Your task to perform on an android device: Search for a custom made wallet on Etsy Image 0: 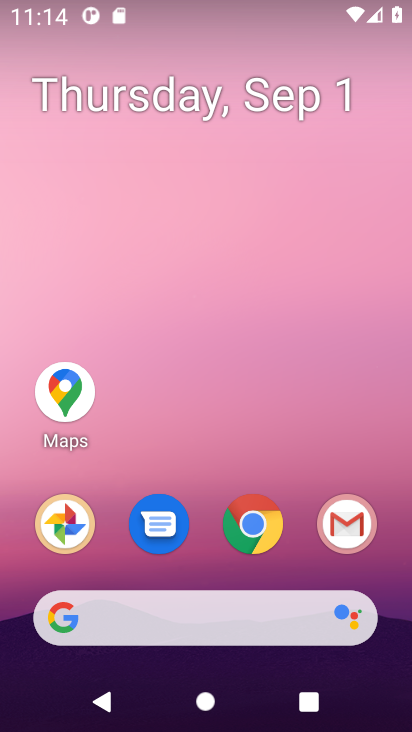
Step 0: click (263, 618)
Your task to perform on an android device: Search for a custom made wallet on Etsy Image 1: 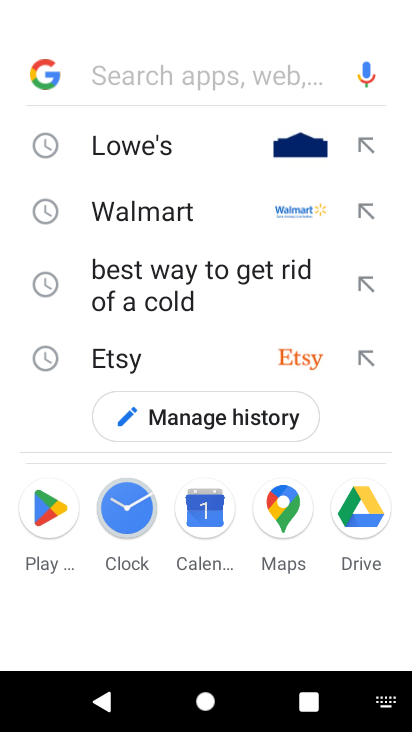
Step 1: press enter
Your task to perform on an android device: Search for a custom made wallet on Etsy Image 2: 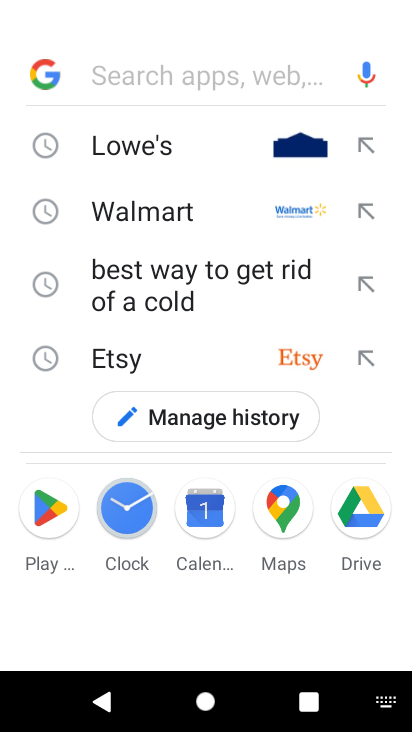
Step 2: type "etsy"
Your task to perform on an android device: Search for a custom made wallet on Etsy Image 3: 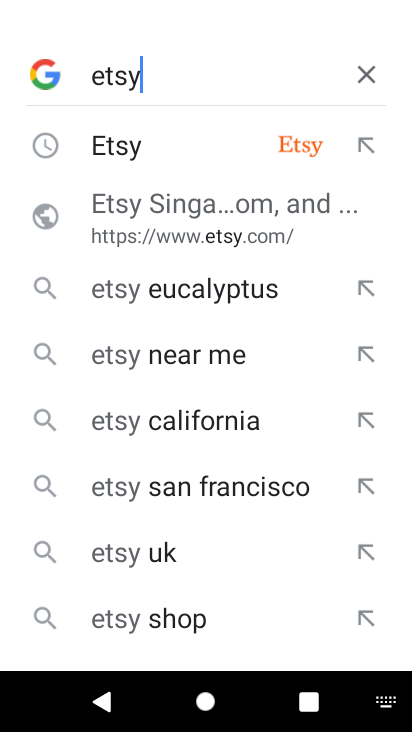
Step 3: click (193, 151)
Your task to perform on an android device: Search for a custom made wallet on Etsy Image 4: 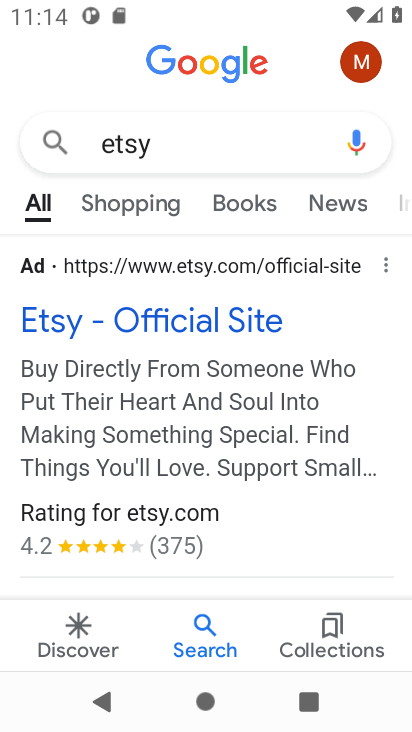
Step 4: click (227, 324)
Your task to perform on an android device: Search for a custom made wallet on Etsy Image 5: 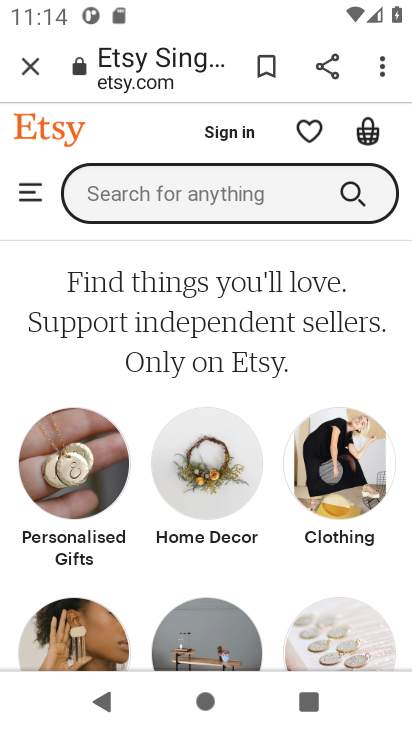
Step 5: click (276, 189)
Your task to perform on an android device: Search for a custom made wallet on Etsy Image 6: 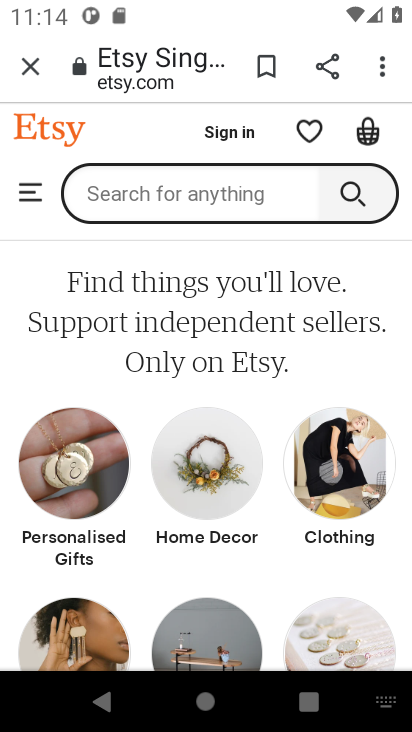
Step 6: press enter
Your task to perform on an android device: Search for a custom made wallet on Etsy Image 7: 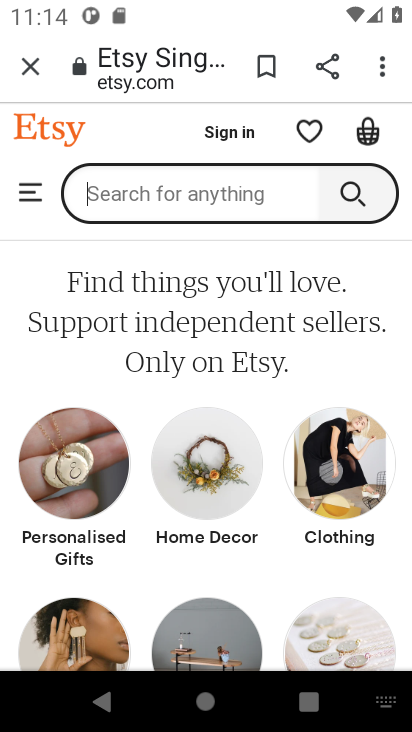
Step 7: type "custom made wallet"
Your task to perform on an android device: Search for a custom made wallet on Etsy Image 8: 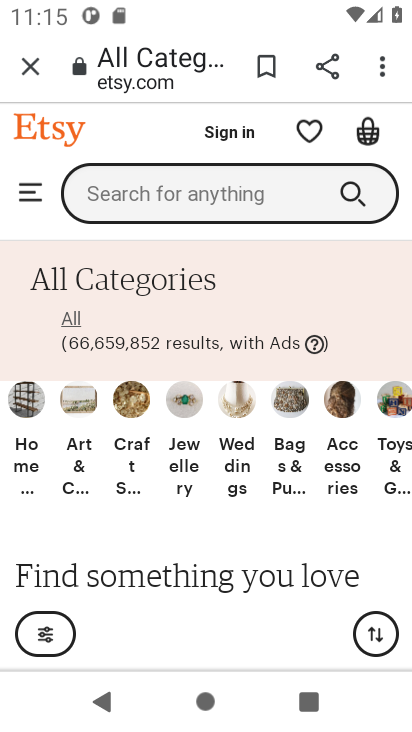
Step 8: click (120, 185)
Your task to perform on an android device: Search for a custom made wallet on Etsy Image 9: 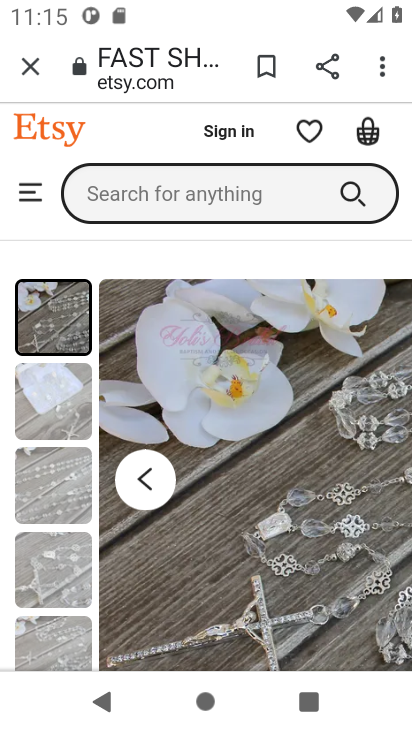
Step 9: click (171, 198)
Your task to perform on an android device: Search for a custom made wallet on Etsy Image 10: 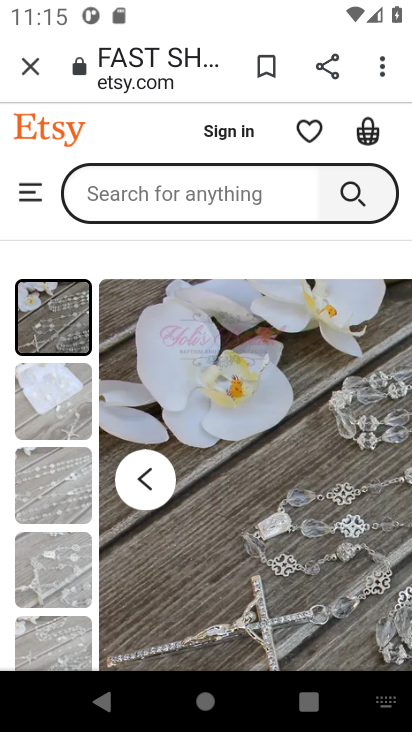
Step 10: type "custom made wallet"
Your task to perform on an android device: Search for a custom made wallet on Etsy Image 11: 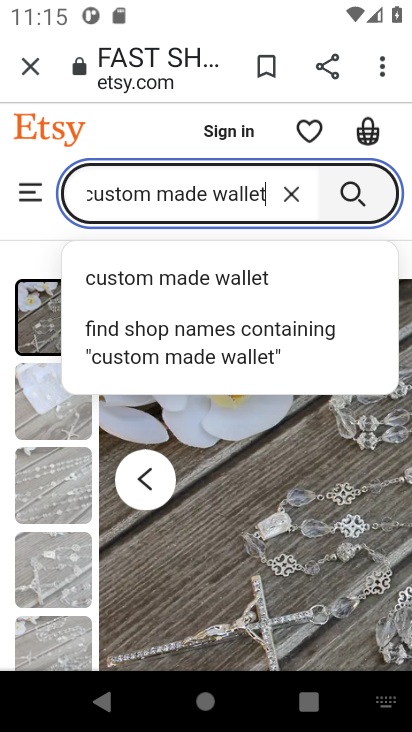
Step 11: click (261, 279)
Your task to perform on an android device: Search for a custom made wallet on Etsy Image 12: 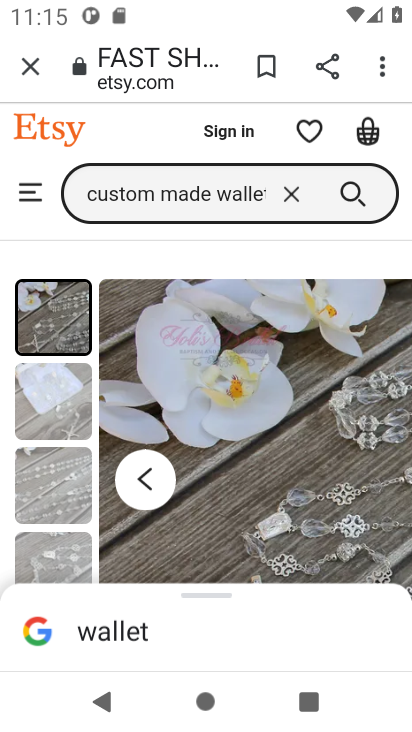
Step 12: task complete